Your task to perform on an android device: Search for the new nike shoes on Target Image 0: 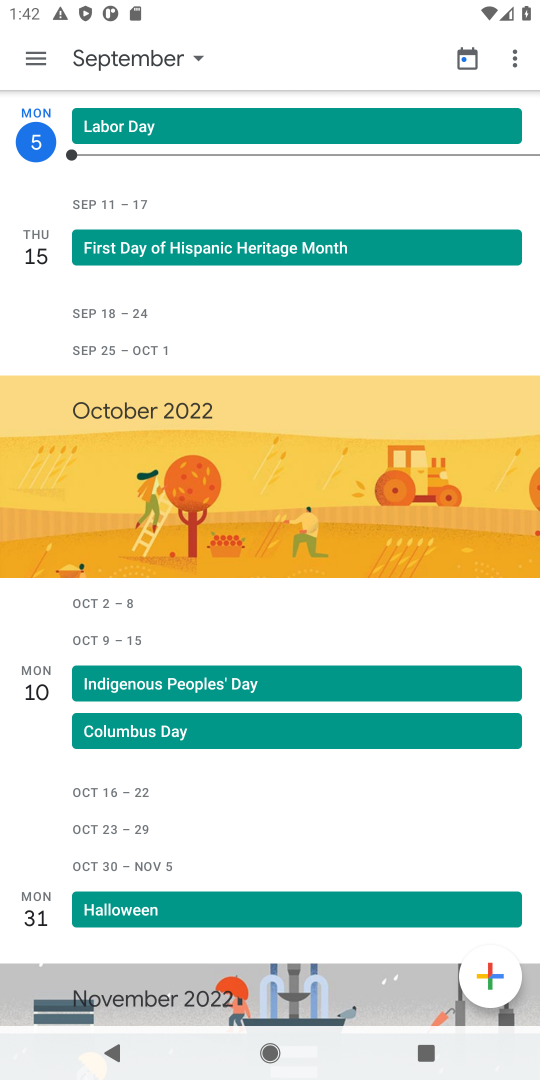
Step 0: press home button
Your task to perform on an android device: Search for the new nike shoes on Target Image 1: 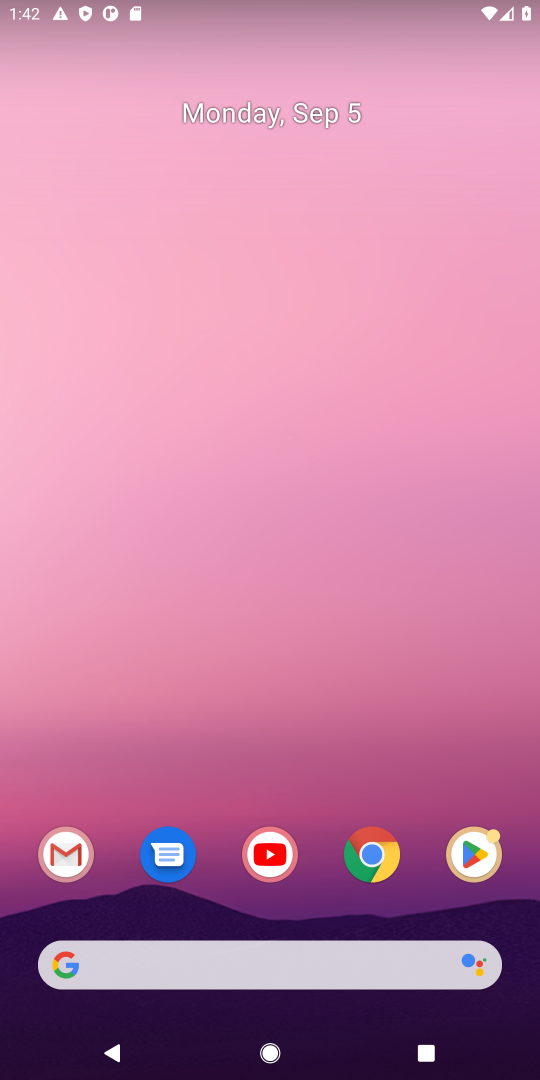
Step 1: click (301, 968)
Your task to perform on an android device: Search for the new nike shoes on Target Image 2: 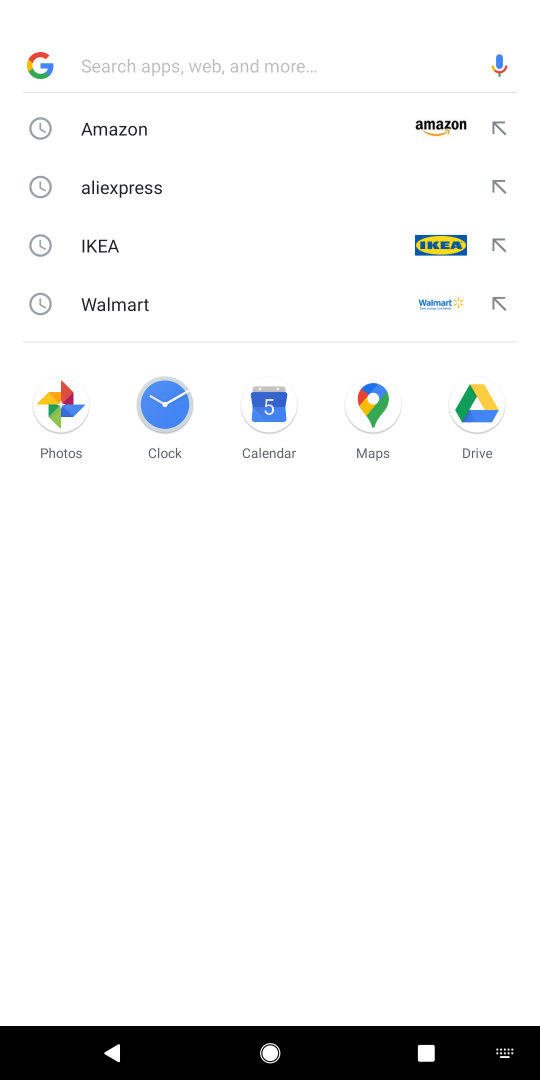
Step 2: type "target"
Your task to perform on an android device: Search for the new nike shoes on Target Image 3: 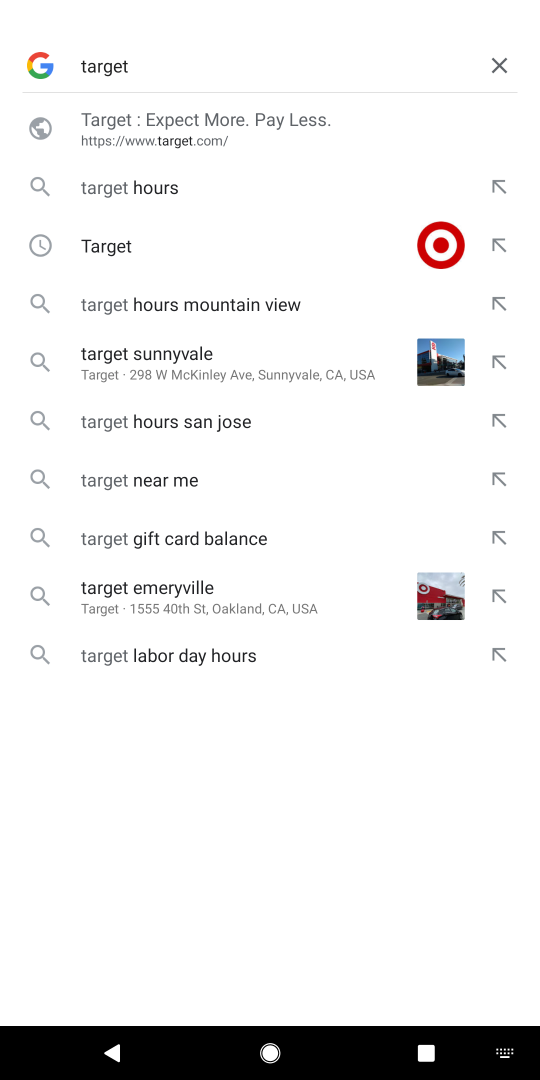
Step 3: press enter
Your task to perform on an android device: Search for the new nike shoes on Target Image 4: 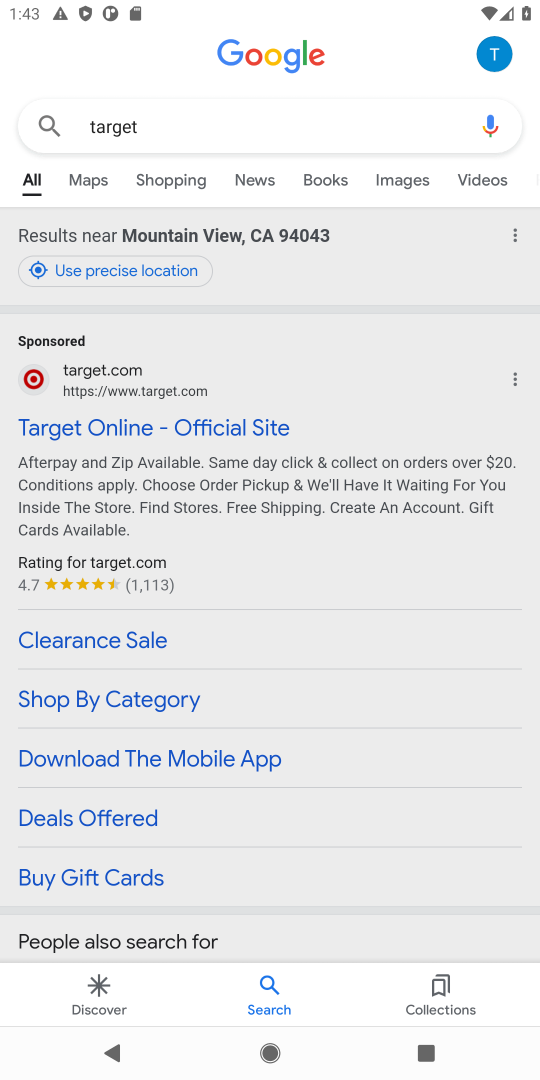
Step 4: click (135, 418)
Your task to perform on an android device: Search for the new nike shoes on Target Image 5: 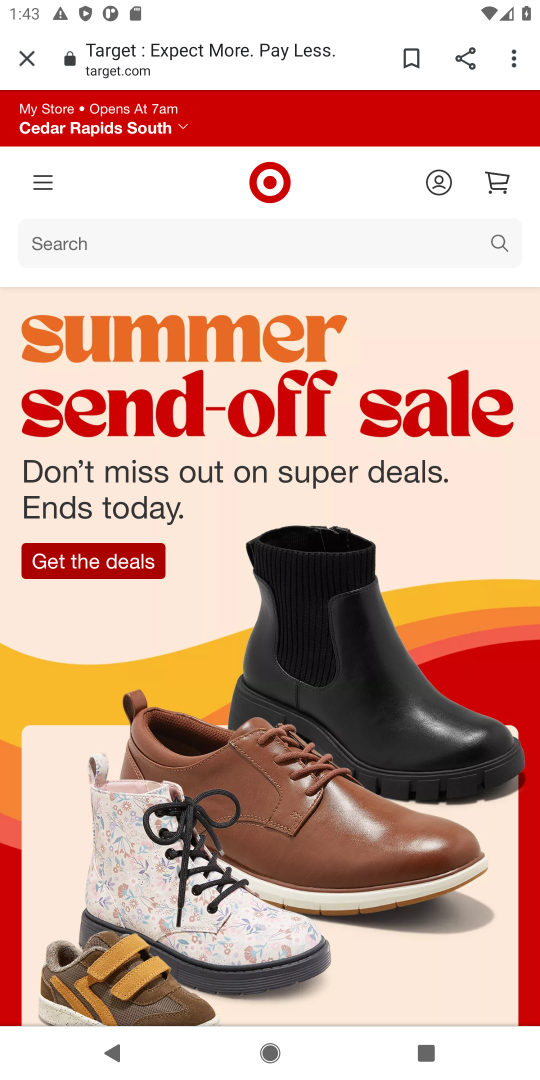
Step 5: click (97, 239)
Your task to perform on an android device: Search for the new nike shoes on Target Image 6: 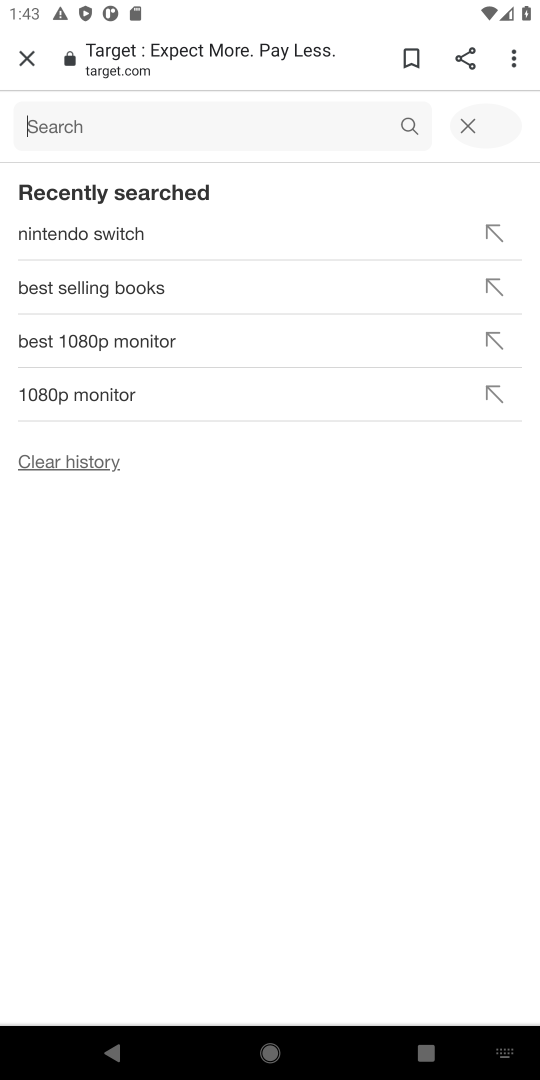
Step 6: press enter
Your task to perform on an android device: Search for the new nike shoes on Target Image 7: 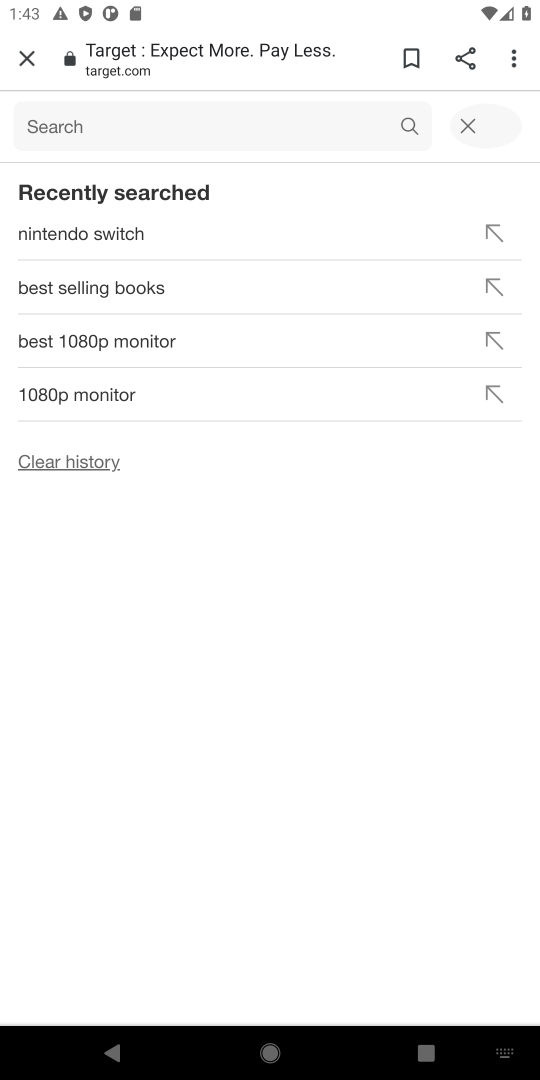
Step 7: type "new nike shoes"
Your task to perform on an android device: Search for the new nike shoes on Target Image 8: 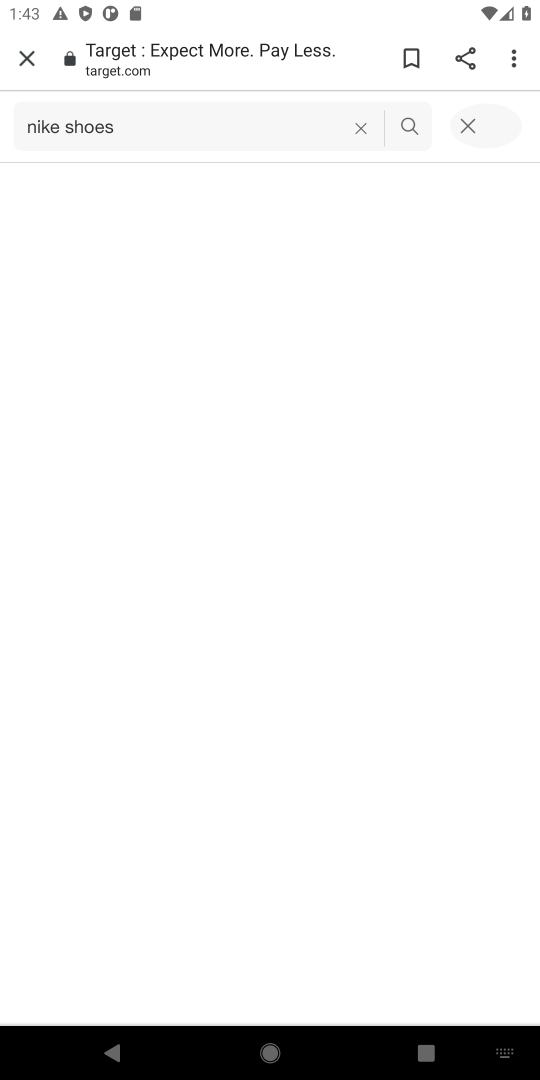
Step 8: click (405, 117)
Your task to perform on an android device: Search for the new nike shoes on Target Image 9: 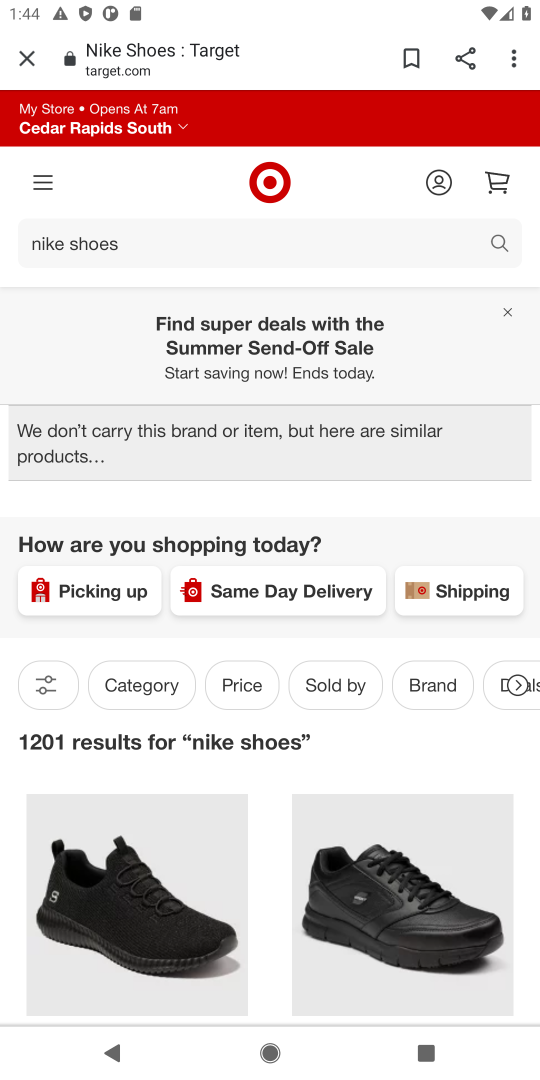
Step 9: task complete